Your task to perform on an android device: clear history in the chrome app Image 0: 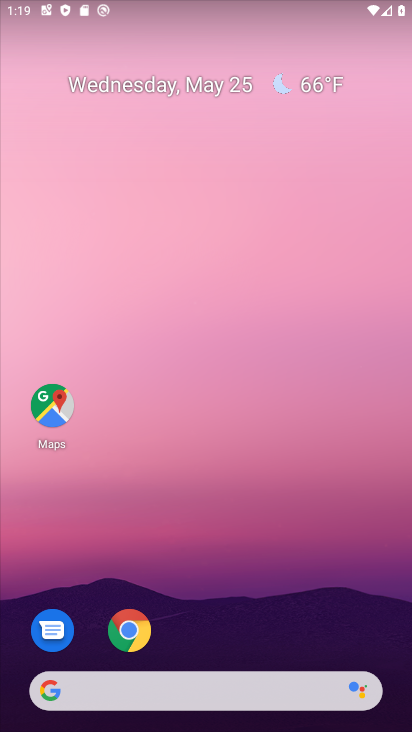
Step 0: click (125, 626)
Your task to perform on an android device: clear history in the chrome app Image 1: 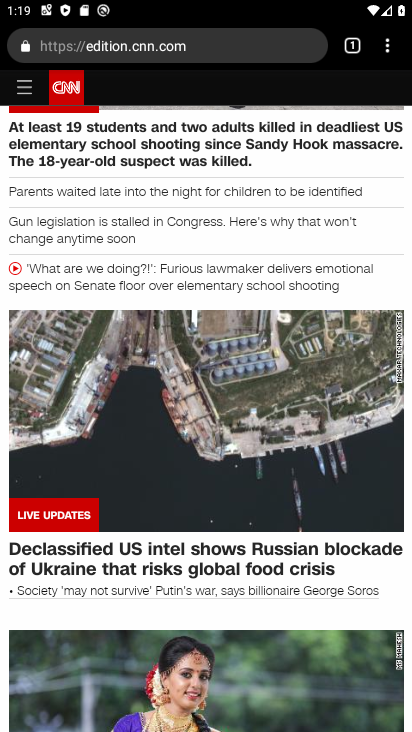
Step 1: click (389, 45)
Your task to perform on an android device: clear history in the chrome app Image 2: 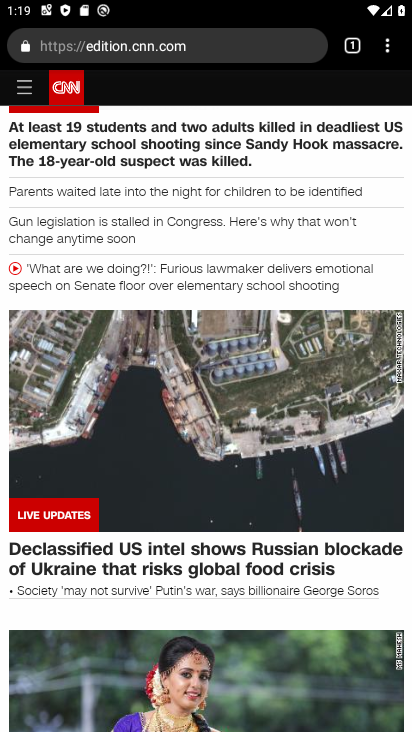
Step 2: click (392, 39)
Your task to perform on an android device: clear history in the chrome app Image 3: 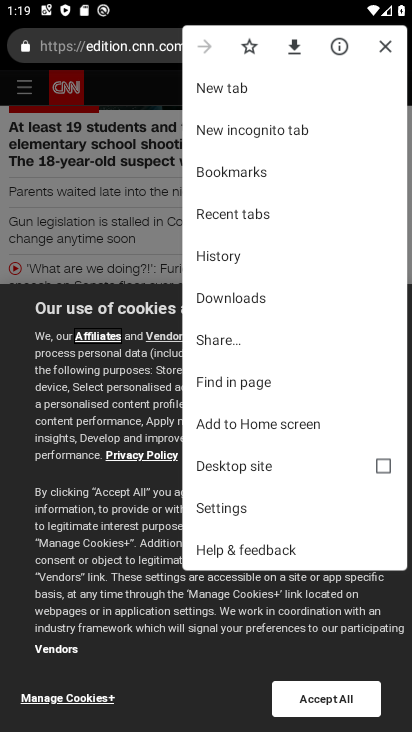
Step 3: click (252, 259)
Your task to perform on an android device: clear history in the chrome app Image 4: 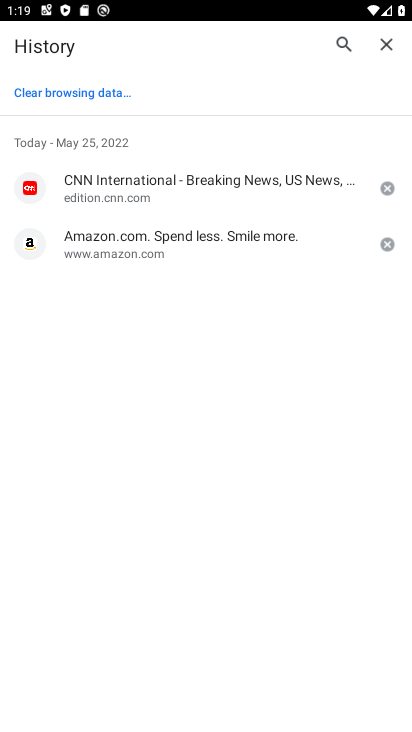
Step 4: click (74, 85)
Your task to perform on an android device: clear history in the chrome app Image 5: 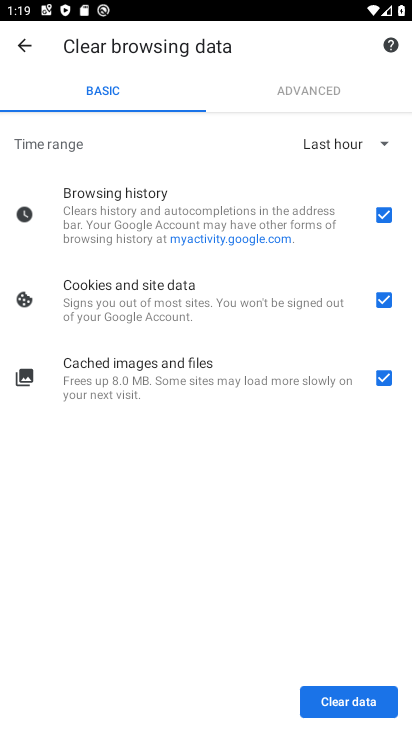
Step 5: click (372, 144)
Your task to perform on an android device: clear history in the chrome app Image 6: 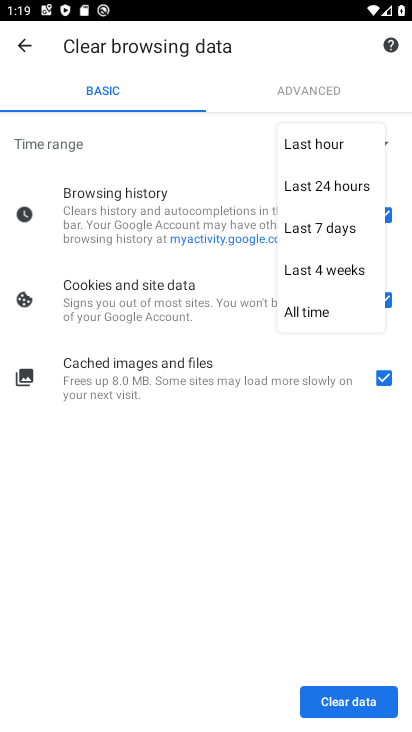
Step 6: click (320, 312)
Your task to perform on an android device: clear history in the chrome app Image 7: 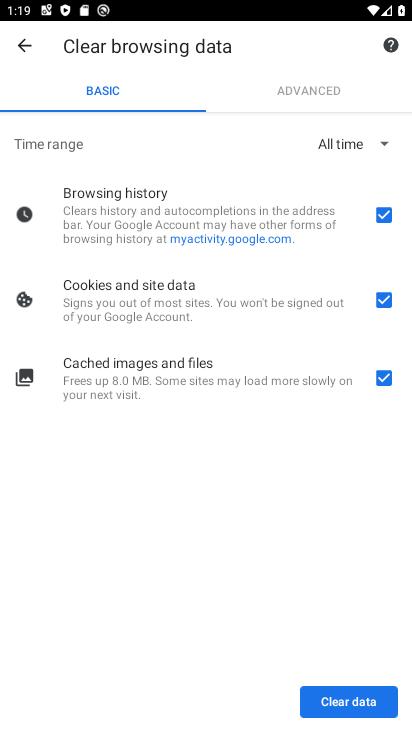
Step 7: click (352, 700)
Your task to perform on an android device: clear history in the chrome app Image 8: 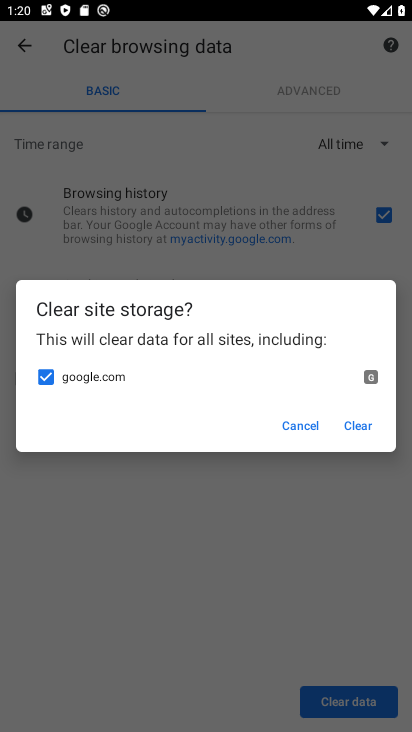
Step 8: click (361, 422)
Your task to perform on an android device: clear history in the chrome app Image 9: 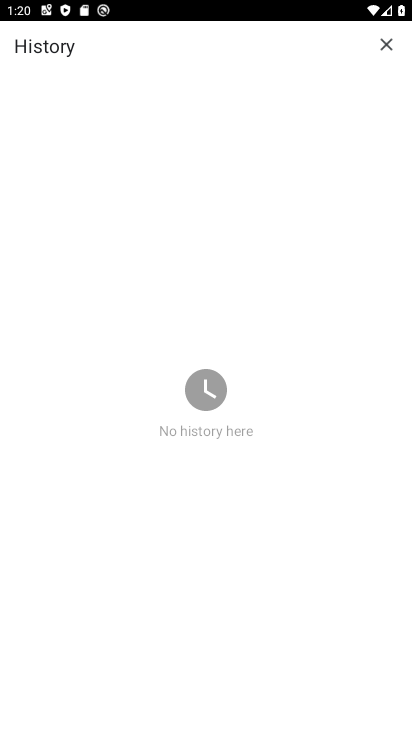
Step 9: task complete